Your task to perform on an android device: turn pop-ups on in chrome Image 0: 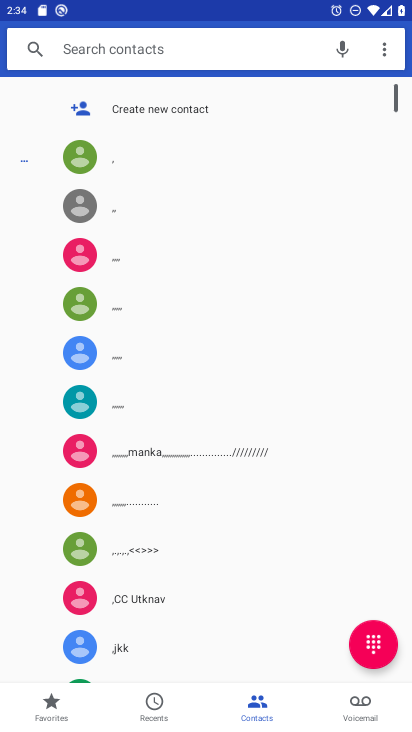
Step 0: press home button
Your task to perform on an android device: turn pop-ups on in chrome Image 1: 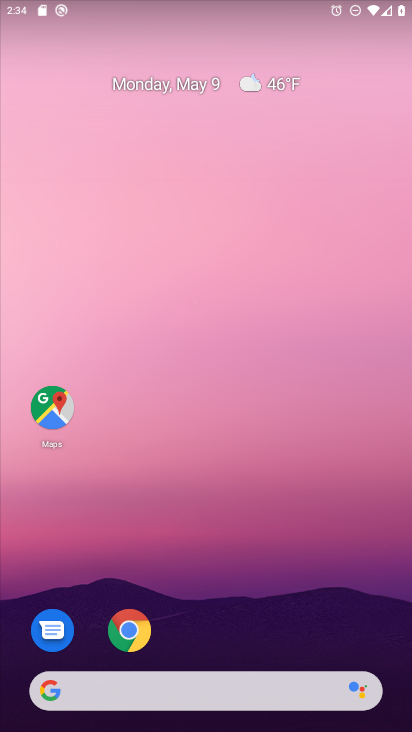
Step 1: drag from (270, 708) to (328, 199)
Your task to perform on an android device: turn pop-ups on in chrome Image 2: 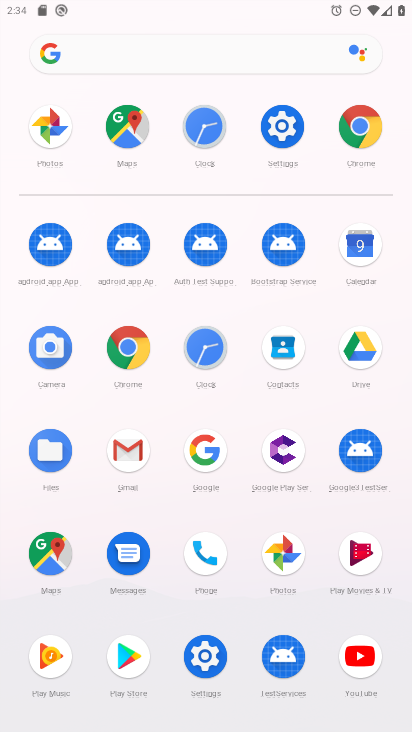
Step 2: click (125, 353)
Your task to perform on an android device: turn pop-ups on in chrome Image 3: 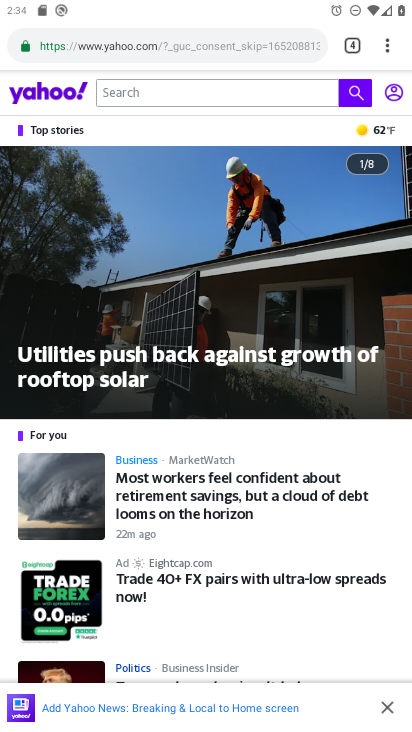
Step 3: click (384, 56)
Your task to perform on an android device: turn pop-ups on in chrome Image 4: 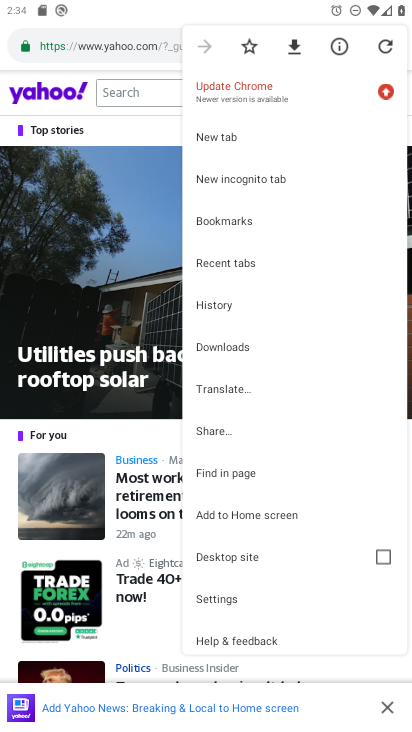
Step 4: click (228, 593)
Your task to perform on an android device: turn pop-ups on in chrome Image 5: 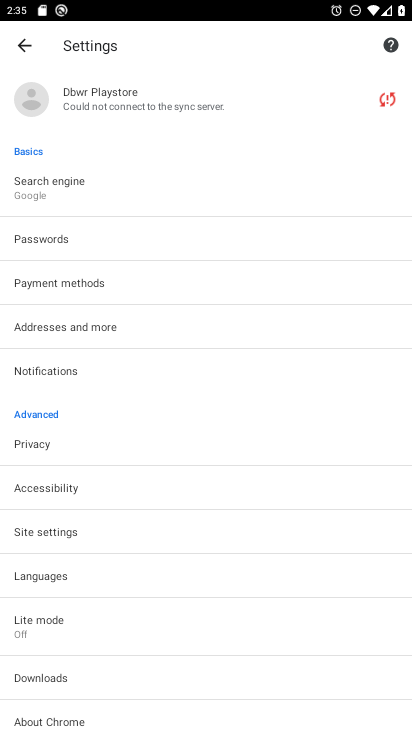
Step 5: click (41, 534)
Your task to perform on an android device: turn pop-ups on in chrome Image 6: 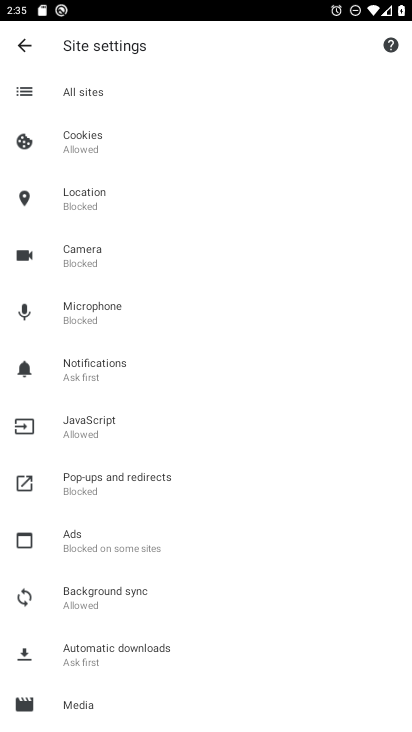
Step 6: click (107, 486)
Your task to perform on an android device: turn pop-ups on in chrome Image 7: 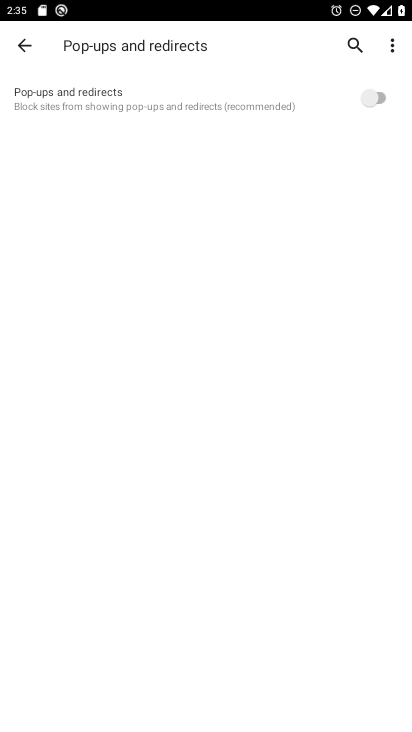
Step 7: click (310, 86)
Your task to perform on an android device: turn pop-ups on in chrome Image 8: 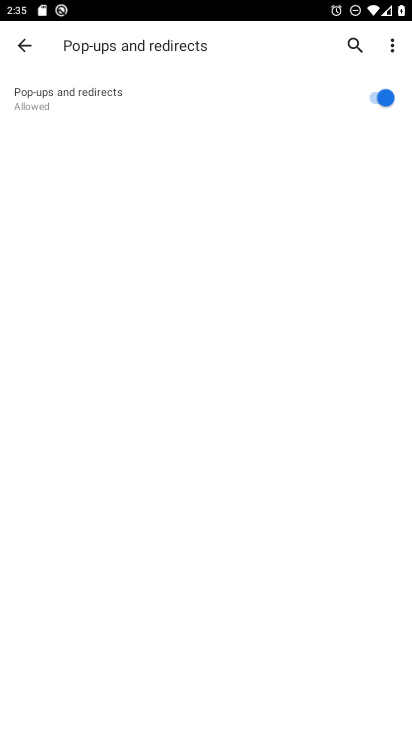
Step 8: task complete